Your task to perform on an android device: Open my contact list Image 0: 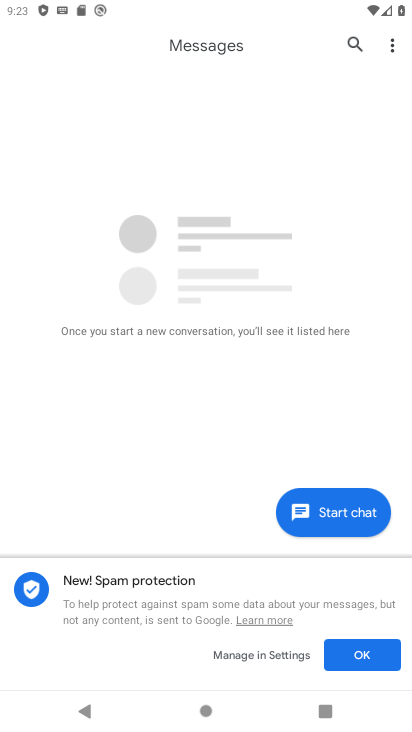
Step 0: press home button
Your task to perform on an android device: Open my contact list Image 1: 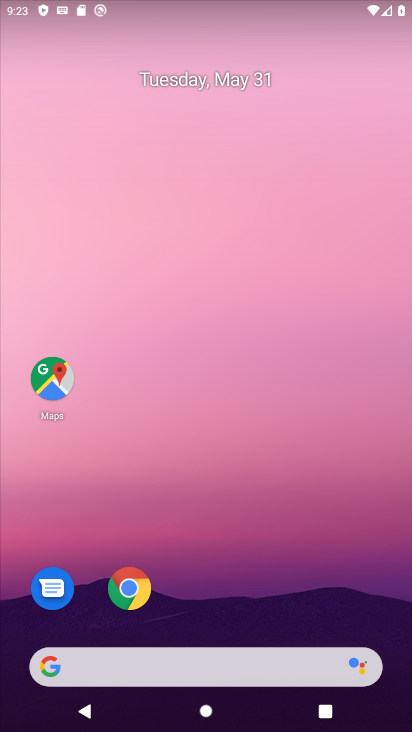
Step 1: drag from (266, 618) to (274, 124)
Your task to perform on an android device: Open my contact list Image 2: 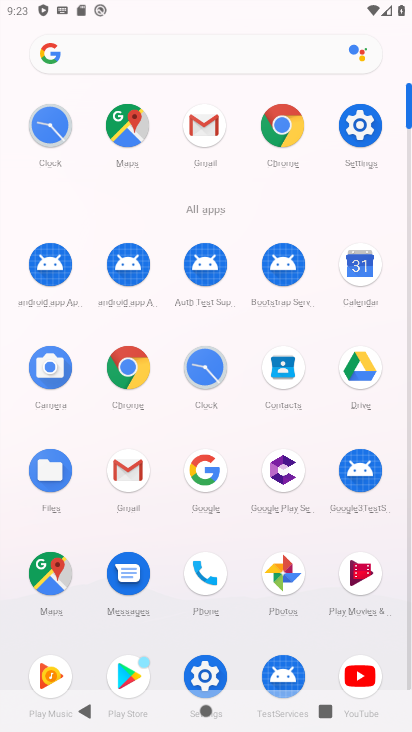
Step 2: click (290, 368)
Your task to perform on an android device: Open my contact list Image 3: 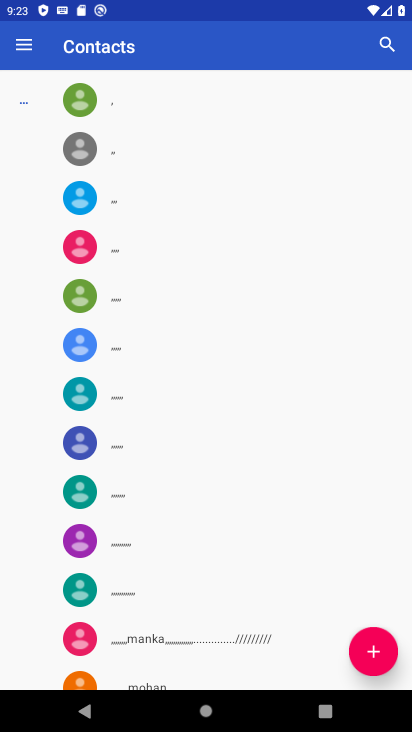
Step 3: task complete